Your task to perform on an android device: Open Reddit.com Image 0: 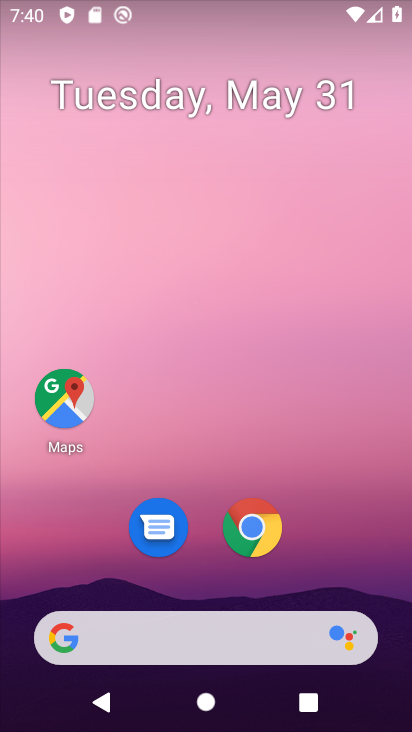
Step 0: click (263, 529)
Your task to perform on an android device: Open Reddit.com Image 1: 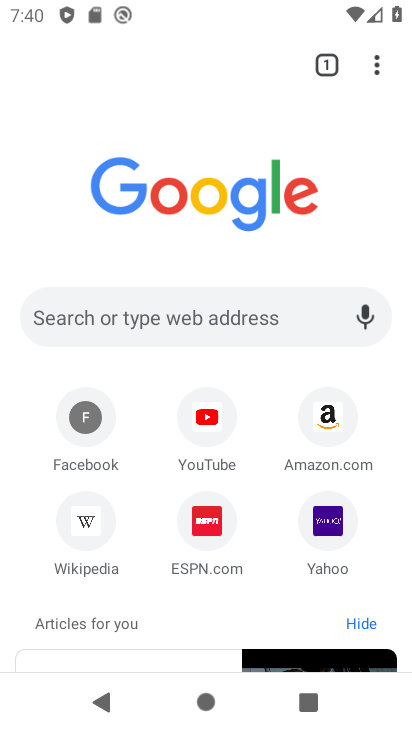
Step 1: click (181, 312)
Your task to perform on an android device: Open Reddit.com Image 2: 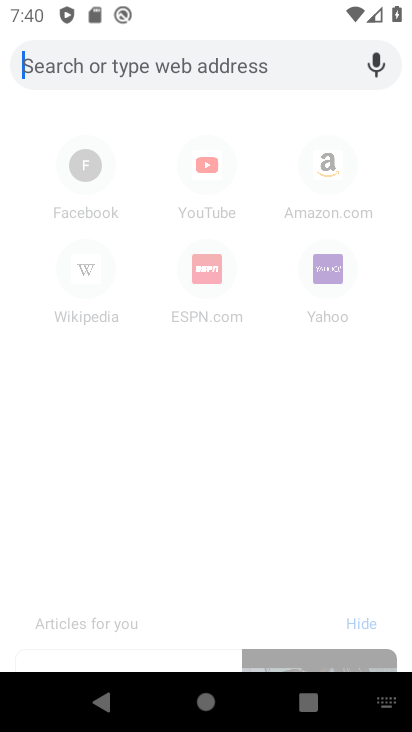
Step 2: type "reddit.com"
Your task to perform on an android device: Open Reddit.com Image 3: 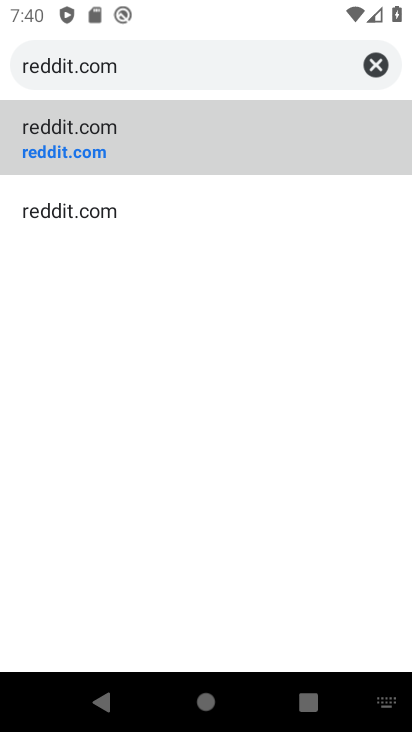
Step 3: click (84, 120)
Your task to perform on an android device: Open Reddit.com Image 4: 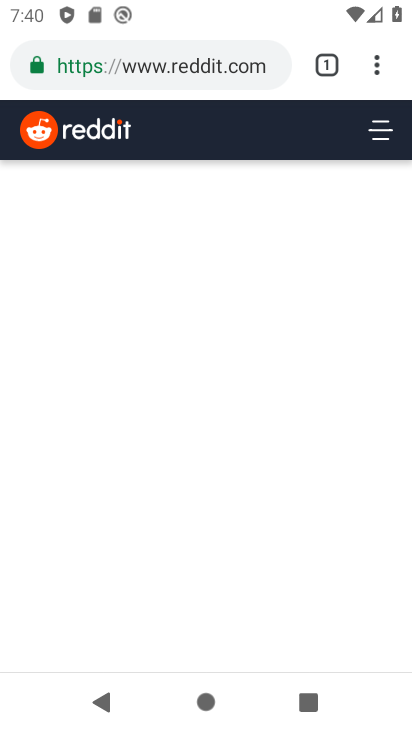
Step 4: task complete